Your task to perform on an android device: Open CNN.com Image 0: 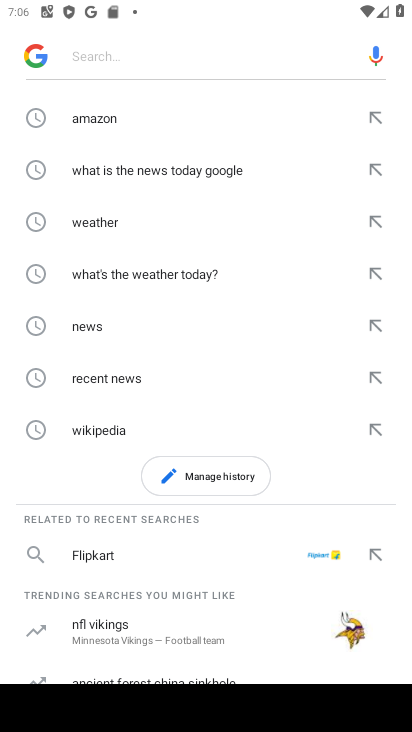
Step 0: press home button
Your task to perform on an android device: Open CNN.com Image 1: 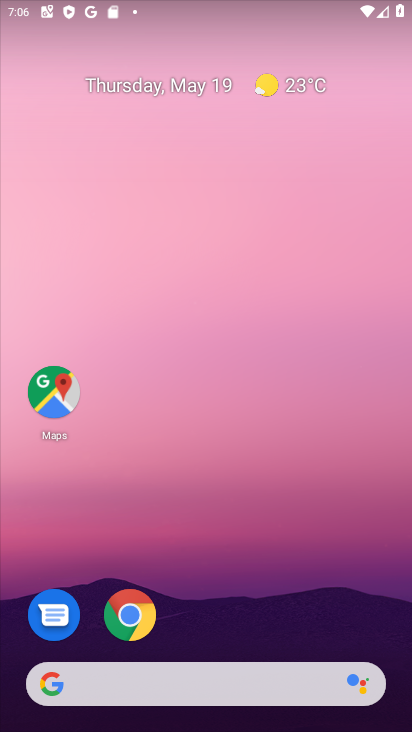
Step 1: drag from (344, 607) to (329, 2)
Your task to perform on an android device: Open CNN.com Image 2: 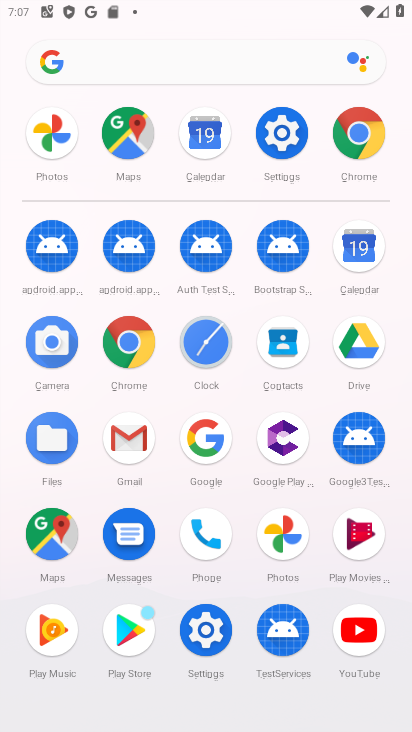
Step 2: click (200, 457)
Your task to perform on an android device: Open CNN.com Image 3: 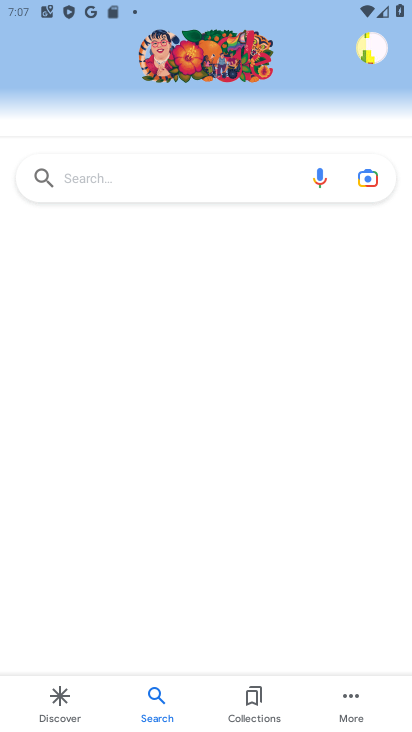
Step 3: click (146, 171)
Your task to perform on an android device: Open CNN.com Image 4: 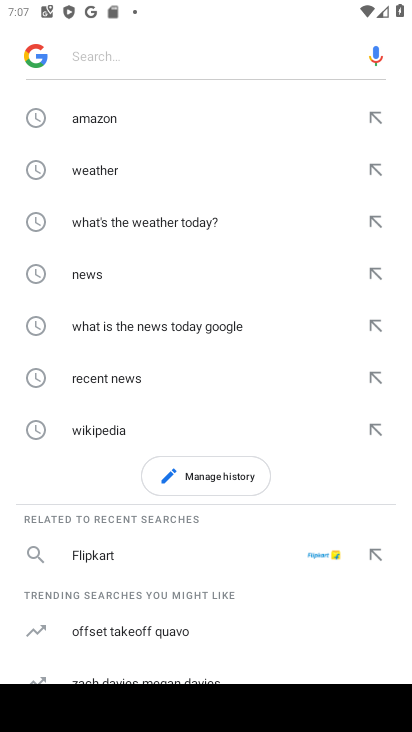
Step 4: type "cnn.com"
Your task to perform on an android device: Open CNN.com Image 5: 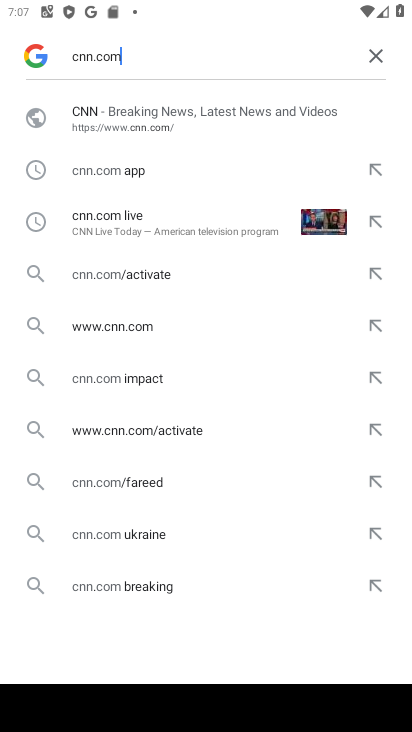
Step 5: click (123, 115)
Your task to perform on an android device: Open CNN.com Image 6: 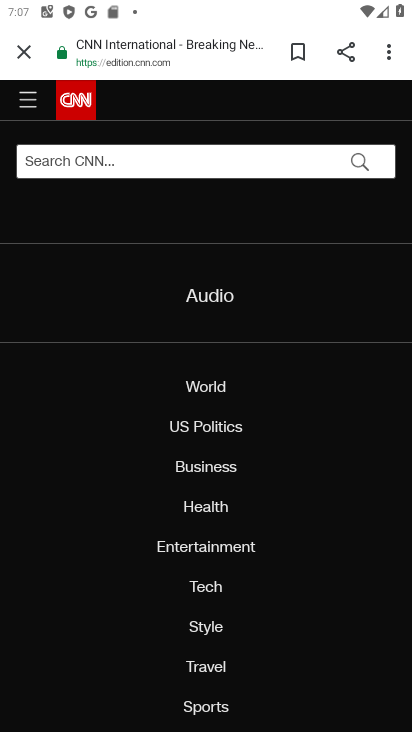
Step 6: task complete